Your task to perform on an android device: turn notification dots on Image 0: 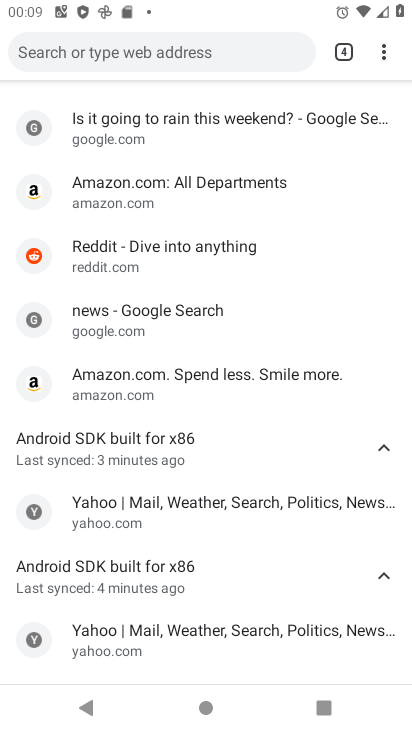
Step 0: press home button
Your task to perform on an android device: turn notification dots on Image 1: 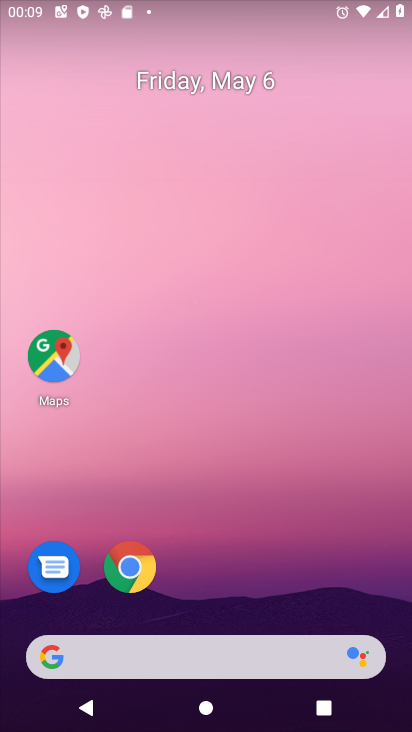
Step 1: drag from (209, 530) to (213, 153)
Your task to perform on an android device: turn notification dots on Image 2: 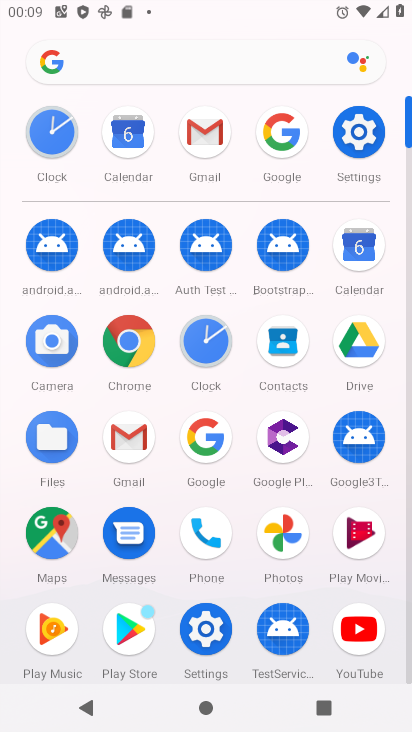
Step 2: click (344, 124)
Your task to perform on an android device: turn notification dots on Image 3: 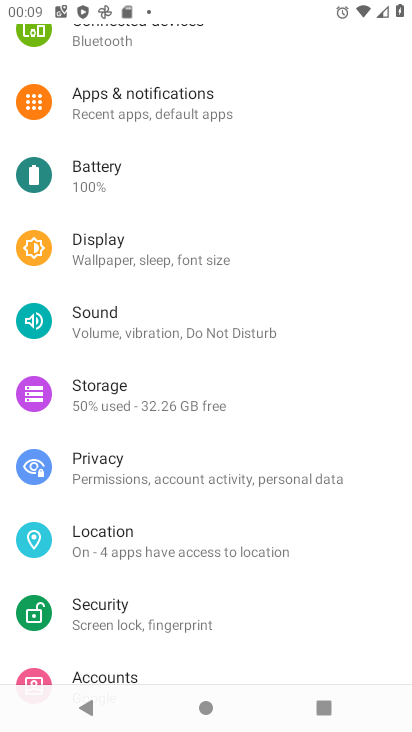
Step 3: click (187, 117)
Your task to perform on an android device: turn notification dots on Image 4: 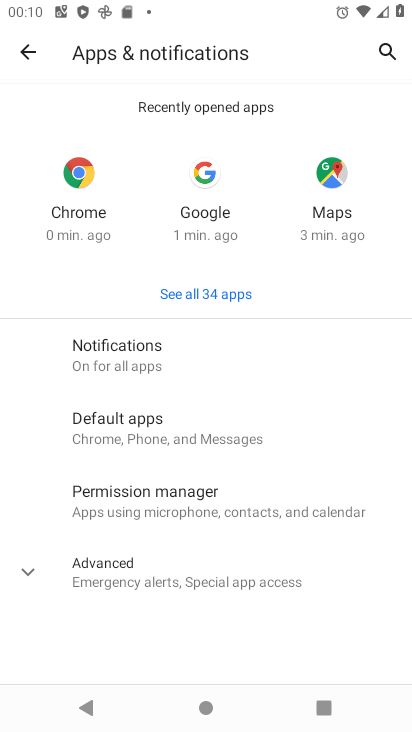
Step 4: click (184, 583)
Your task to perform on an android device: turn notification dots on Image 5: 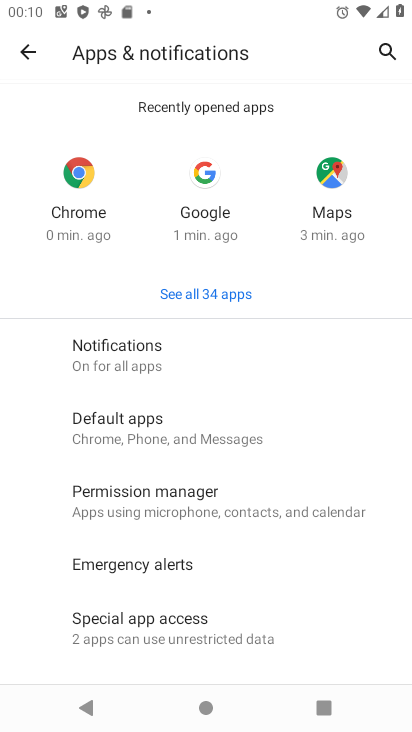
Step 5: click (147, 370)
Your task to perform on an android device: turn notification dots on Image 6: 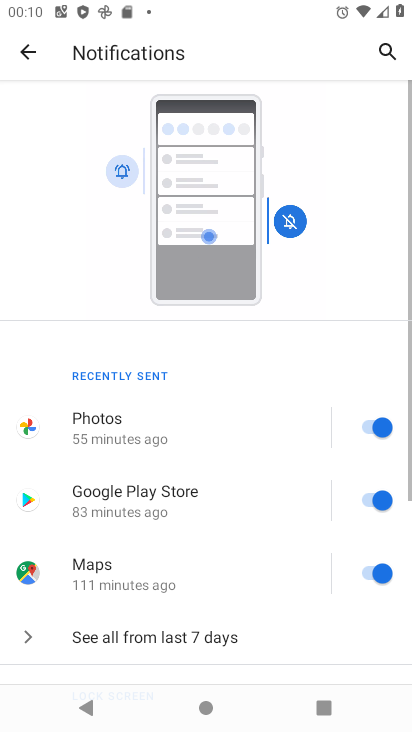
Step 6: drag from (225, 609) to (226, 415)
Your task to perform on an android device: turn notification dots on Image 7: 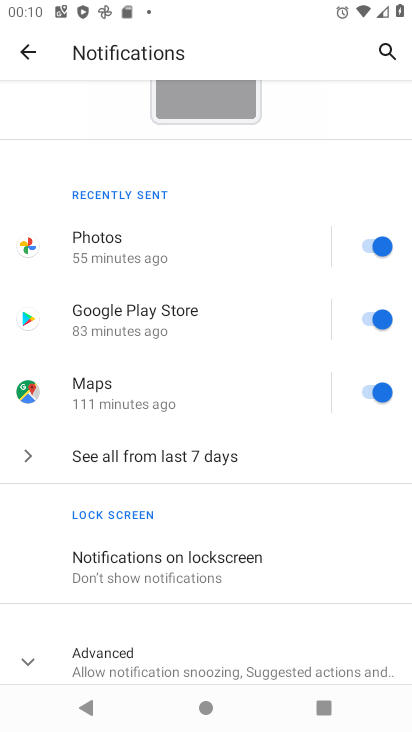
Step 7: drag from (270, 632) to (277, 441)
Your task to perform on an android device: turn notification dots on Image 8: 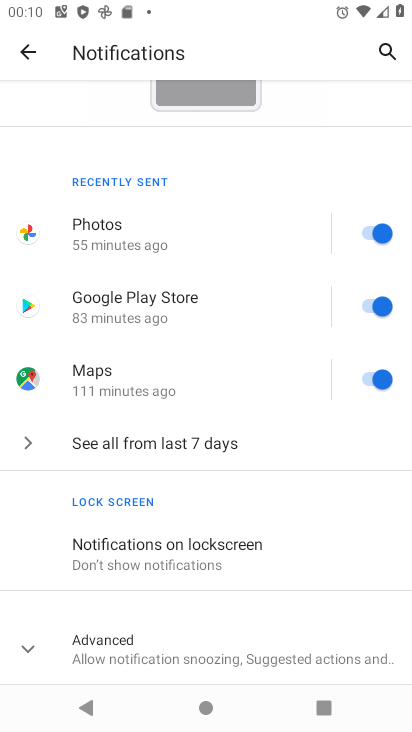
Step 8: click (198, 645)
Your task to perform on an android device: turn notification dots on Image 9: 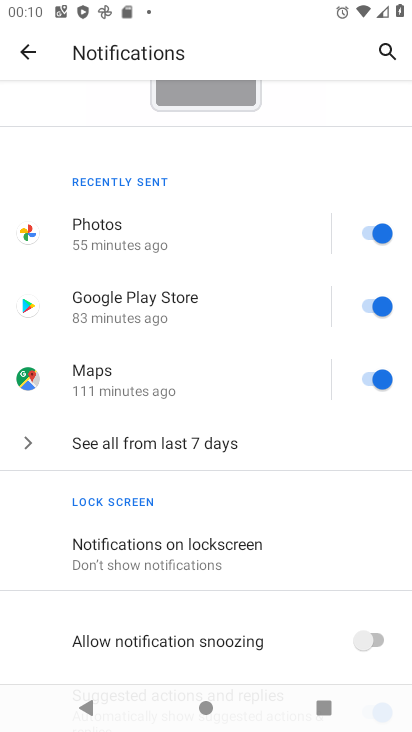
Step 9: task complete